Your task to perform on an android device: Show me productivity apps on the Play Store Image 0: 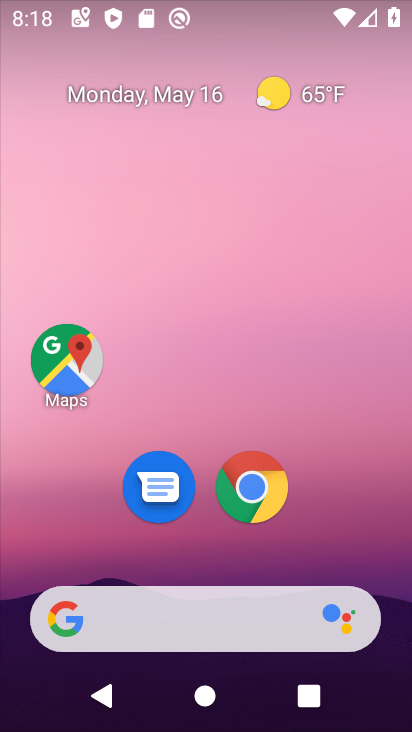
Step 0: drag from (372, 536) to (354, 179)
Your task to perform on an android device: Show me productivity apps on the Play Store Image 1: 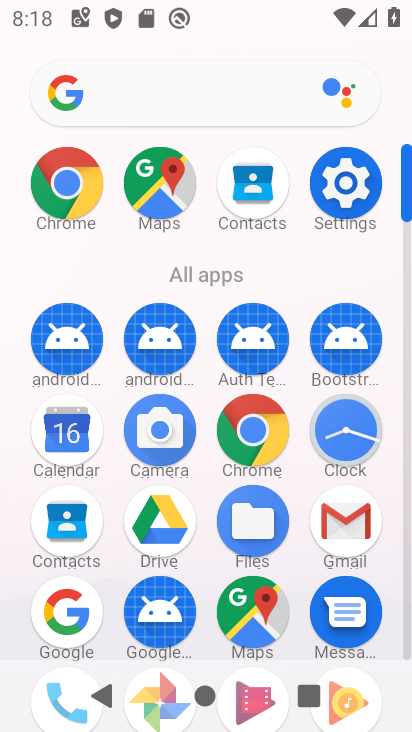
Step 1: drag from (194, 494) to (204, 242)
Your task to perform on an android device: Show me productivity apps on the Play Store Image 2: 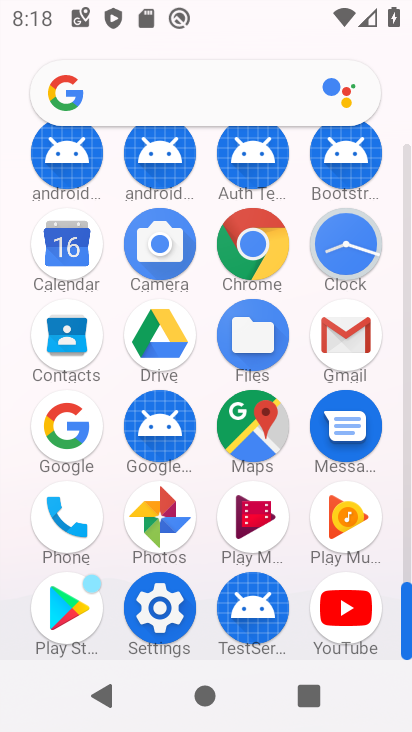
Step 2: click (74, 613)
Your task to perform on an android device: Show me productivity apps on the Play Store Image 3: 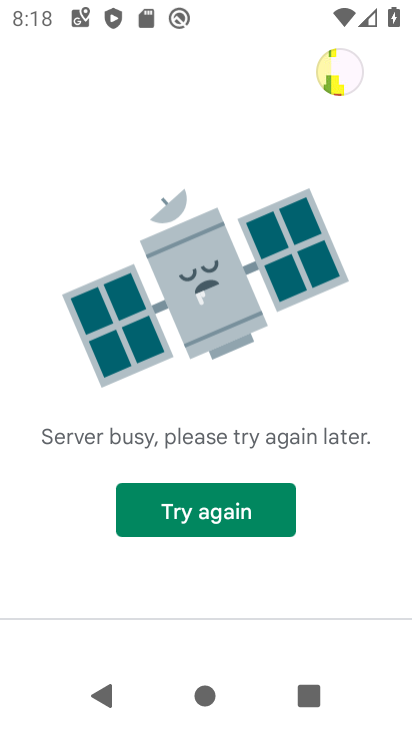
Step 3: click (264, 516)
Your task to perform on an android device: Show me productivity apps on the Play Store Image 4: 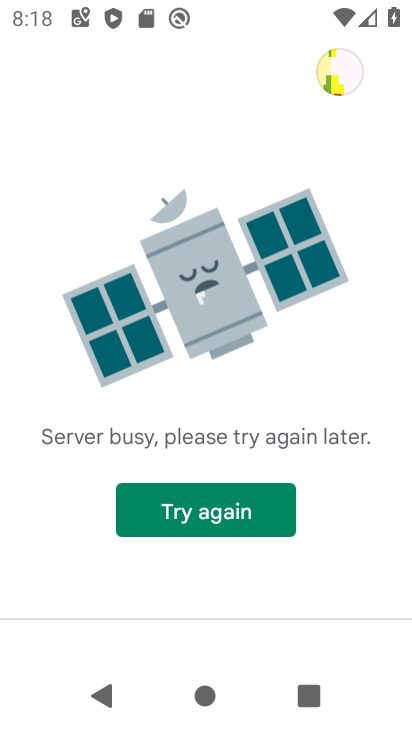
Step 4: click (251, 528)
Your task to perform on an android device: Show me productivity apps on the Play Store Image 5: 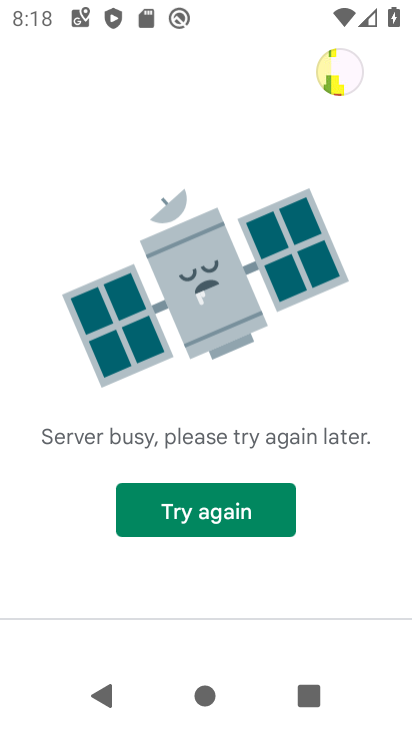
Step 5: task complete